Your task to perform on an android device: Check the news Image 0: 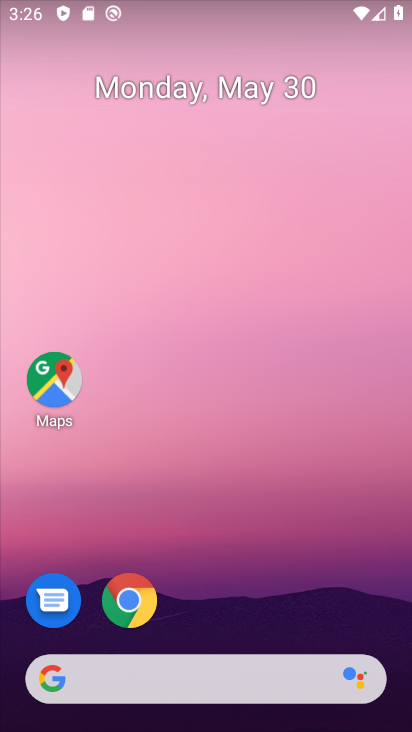
Step 0: click (174, 674)
Your task to perform on an android device: Check the news Image 1: 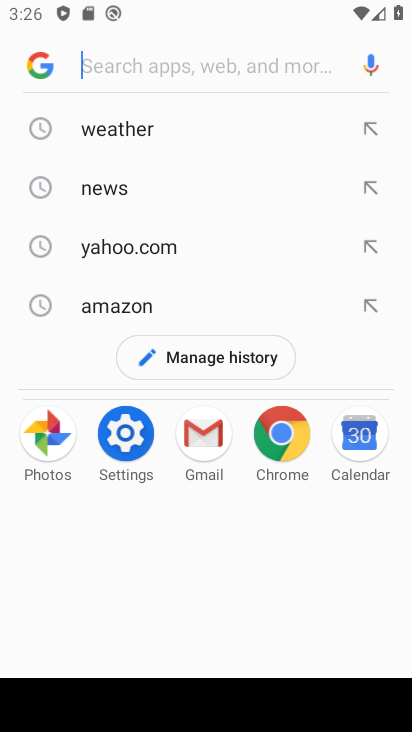
Step 1: click (139, 196)
Your task to perform on an android device: Check the news Image 2: 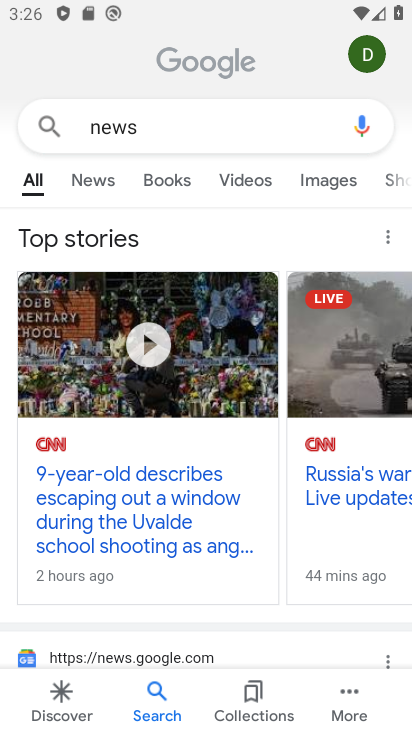
Step 2: task complete